Your task to perform on an android device: change timer sound Image 0: 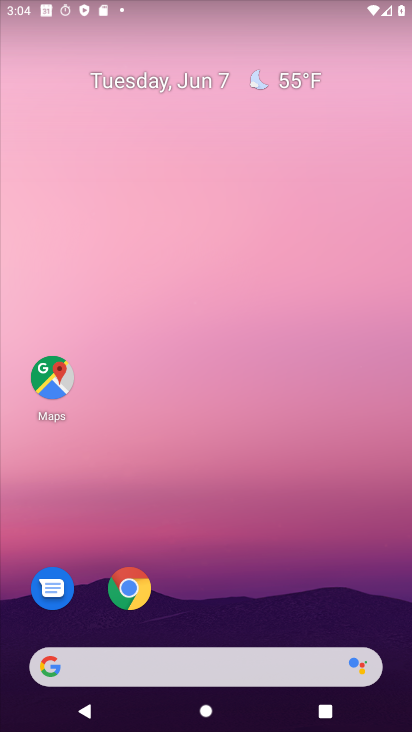
Step 0: press home button
Your task to perform on an android device: change timer sound Image 1: 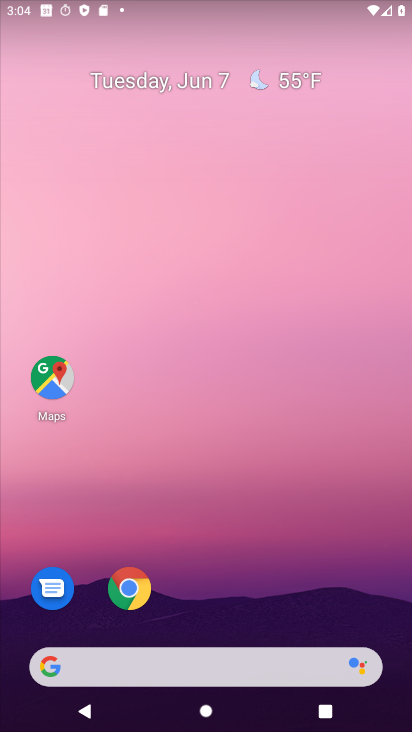
Step 1: drag from (213, 625) to (235, 199)
Your task to perform on an android device: change timer sound Image 2: 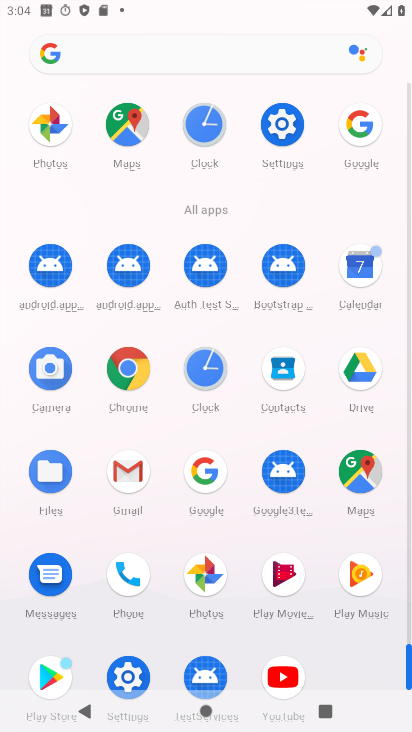
Step 2: click (212, 372)
Your task to perform on an android device: change timer sound Image 3: 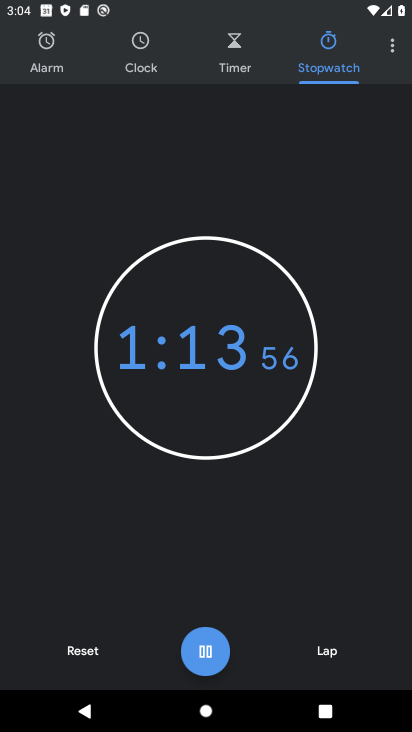
Step 3: click (397, 43)
Your task to perform on an android device: change timer sound Image 4: 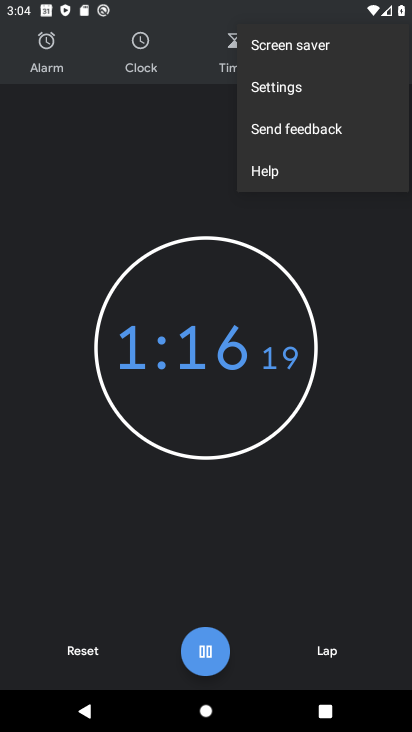
Step 4: click (278, 88)
Your task to perform on an android device: change timer sound Image 5: 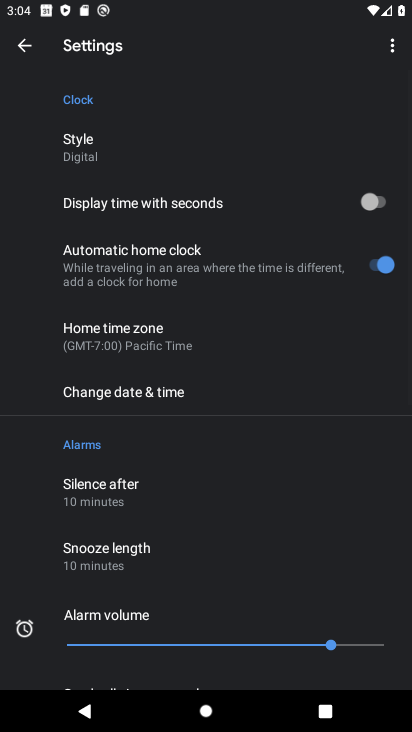
Step 5: drag from (260, 529) to (286, 150)
Your task to perform on an android device: change timer sound Image 6: 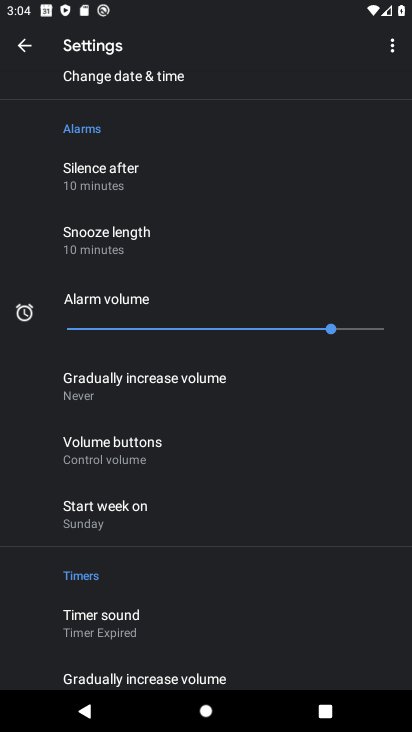
Step 6: click (85, 614)
Your task to perform on an android device: change timer sound Image 7: 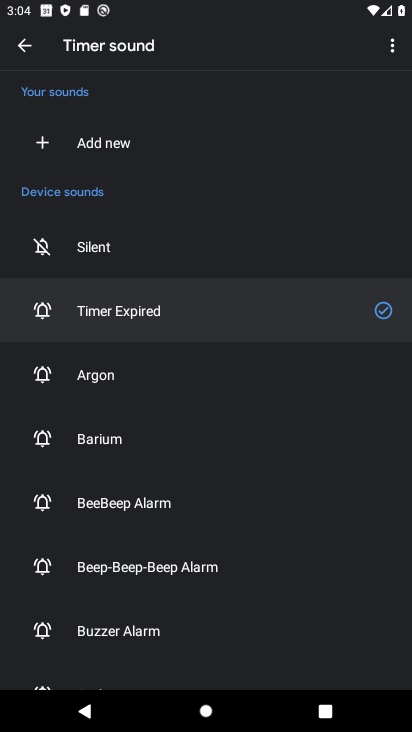
Step 7: click (133, 505)
Your task to perform on an android device: change timer sound Image 8: 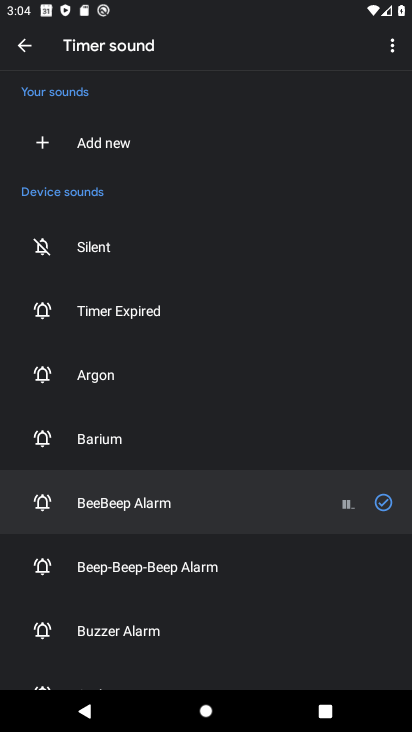
Step 8: task complete